Your task to perform on an android device: change the clock style Image 0: 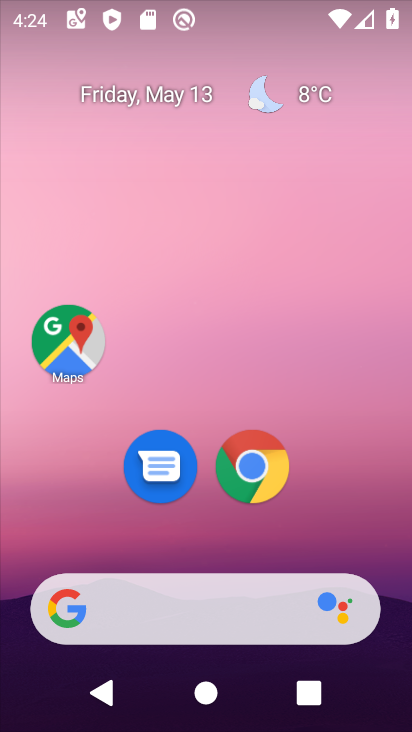
Step 0: drag from (380, 580) to (369, 149)
Your task to perform on an android device: change the clock style Image 1: 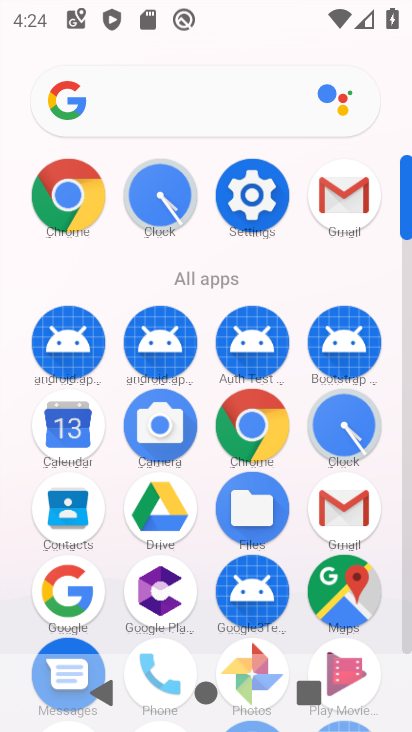
Step 1: click (343, 422)
Your task to perform on an android device: change the clock style Image 2: 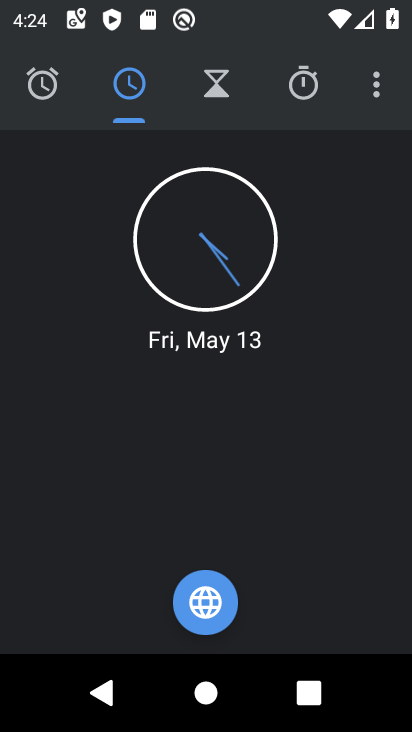
Step 2: click (373, 93)
Your task to perform on an android device: change the clock style Image 3: 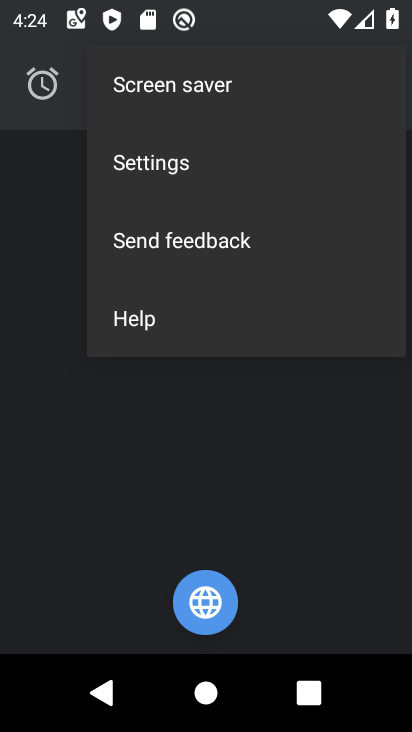
Step 3: click (145, 165)
Your task to perform on an android device: change the clock style Image 4: 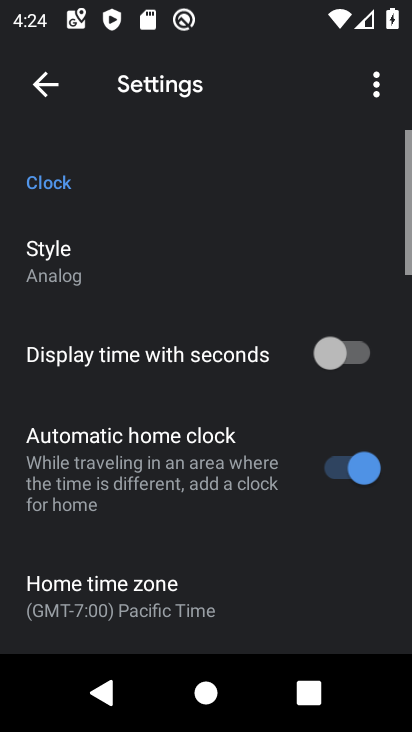
Step 4: click (55, 264)
Your task to perform on an android device: change the clock style Image 5: 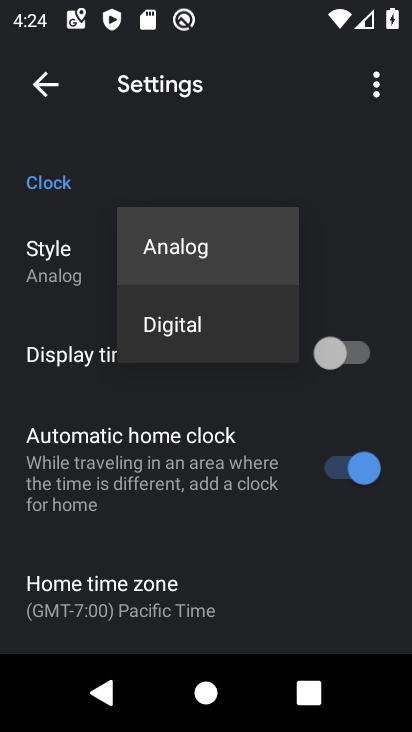
Step 5: click (181, 313)
Your task to perform on an android device: change the clock style Image 6: 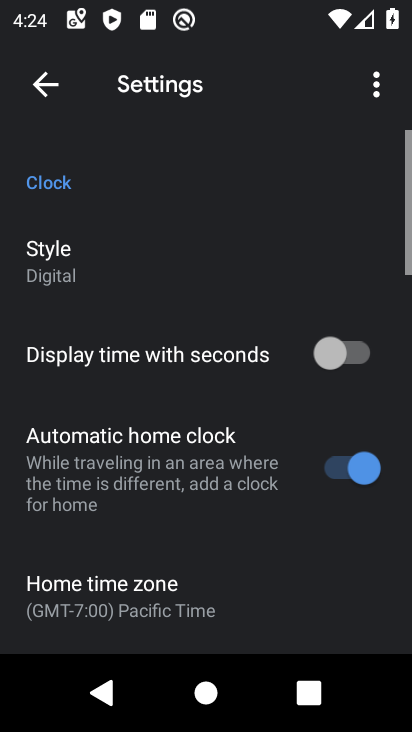
Step 6: task complete